Your task to perform on an android device: toggle improve location accuracy Image 0: 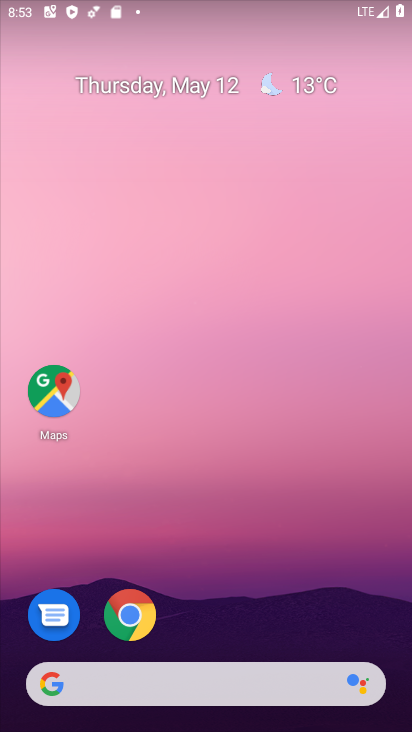
Step 0: drag from (195, 394) to (267, 38)
Your task to perform on an android device: toggle improve location accuracy Image 1: 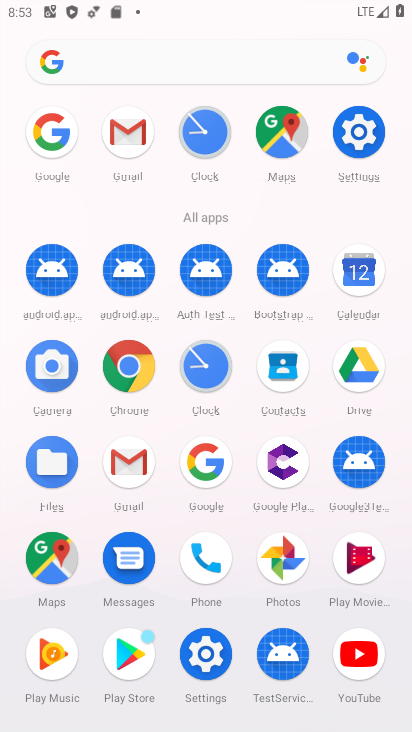
Step 1: click (365, 122)
Your task to perform on an android device: toggle improve location accuracy Image 2: 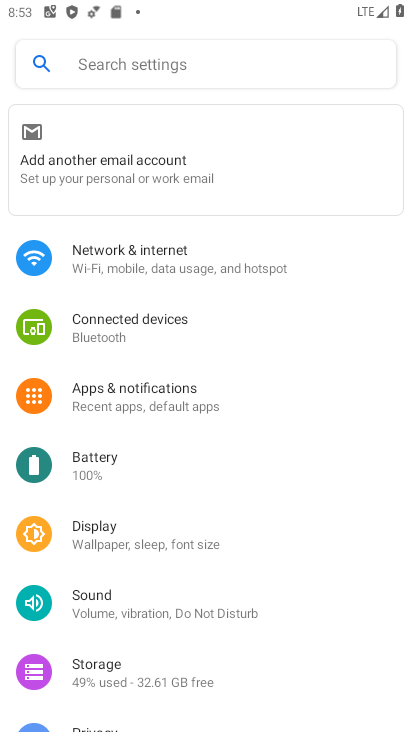
Step 2: drag from (173, 611) to (154, 234)
Your task to perform on an android device: toggle improve location accuracy Image 3: 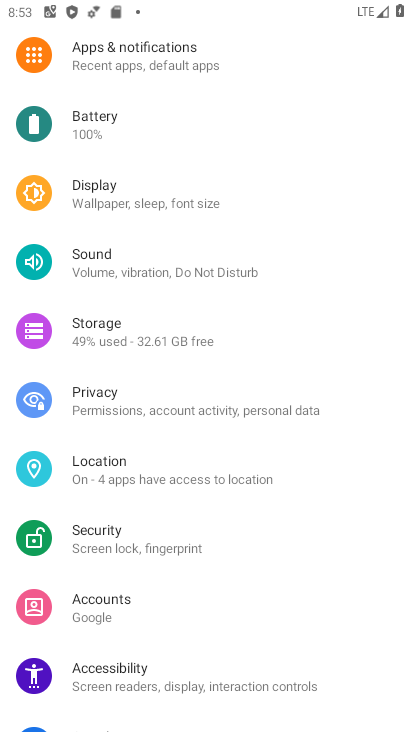
Step 3: click (84, 468)
Your task to perform on an android device: toggle improve location accuracy Image 4: 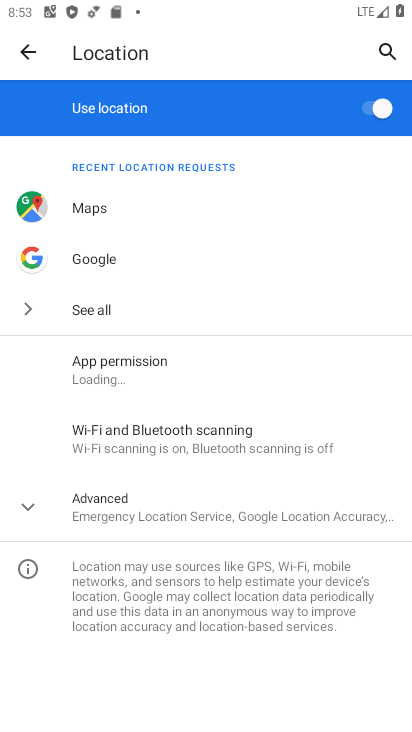
Step 4: click (111, 497)
Your task to perform on an android device: toggle improve location accuracy Image 5: 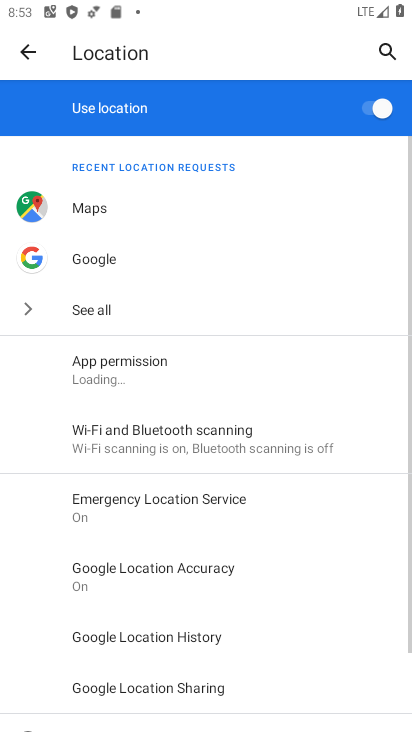
Step 5: click (179, 574)
Your task to perform on an android device: toggle improve location accuracy Image 6: 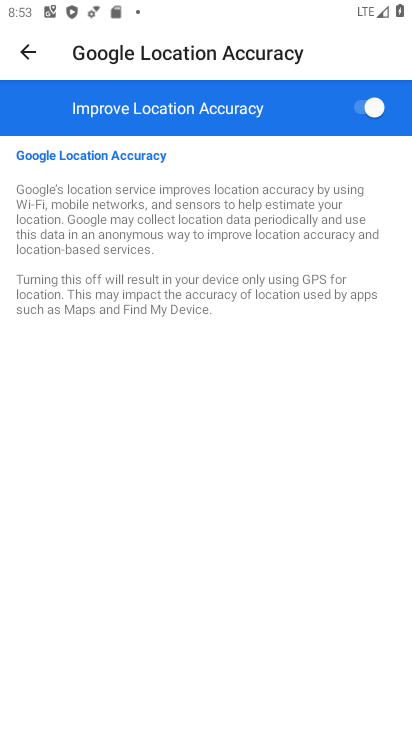
Step 6: click (361, 104)
Your task to perform on an android device: toggle improve location accuracy Image 7: 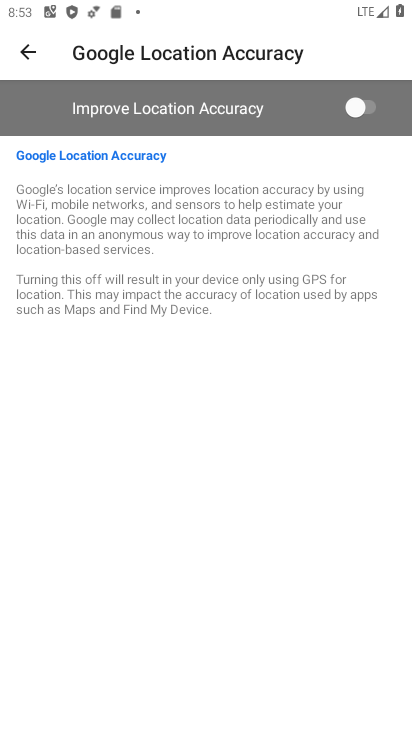
Step 7: task complete